Your task to perform on an android device: toggle pop-ups in chrome Image 0: 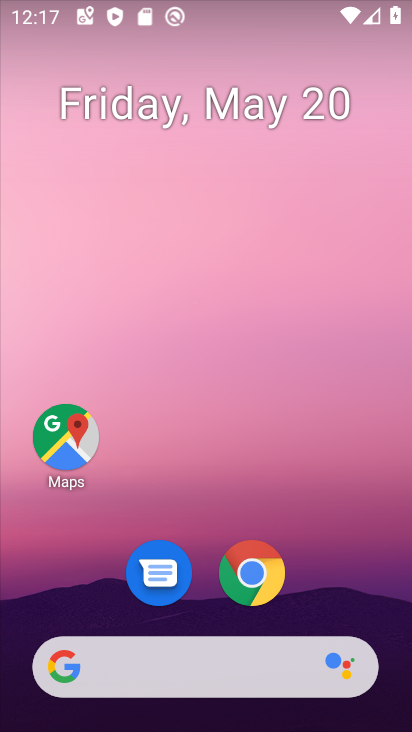
Step 0: click (258, 567)
Your task to perform on an android device: toggle pop-ups in chrome Image 1: 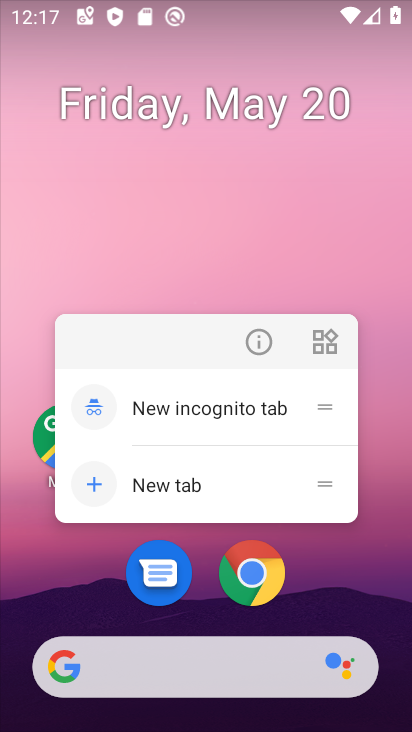
Step 1: click (258, 566)
Your task to perform on an android device: toggle pop-ups in chrome Image 2: 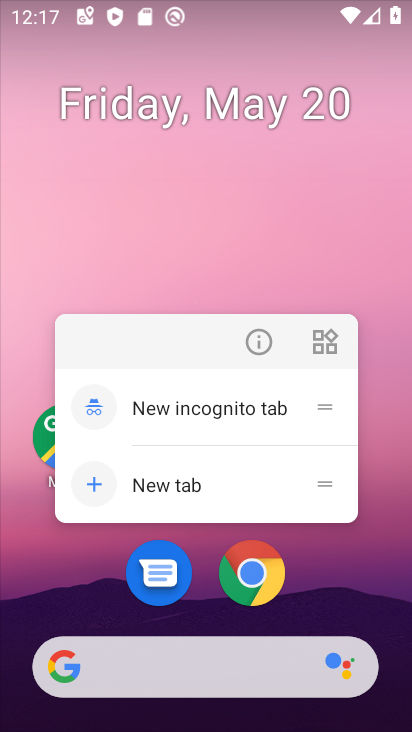
Step 2: click (260, 564)
Your task to perform on an android device: toggle pop-ups in chrome Image 3: 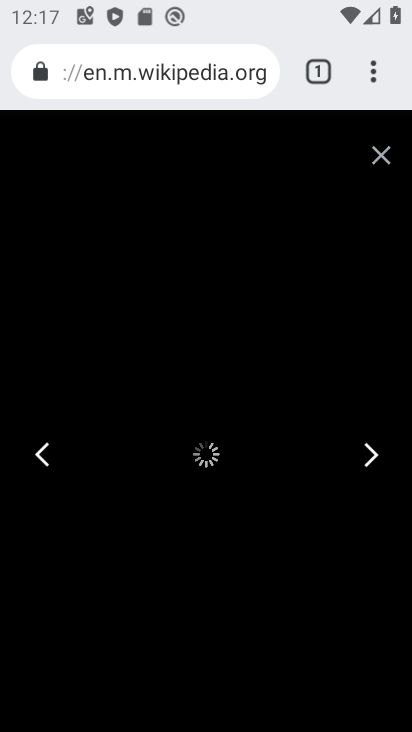
Step 3: click (379, 65)
Your task to perform on an android device: toggle pop-ups in chrome Image 4: 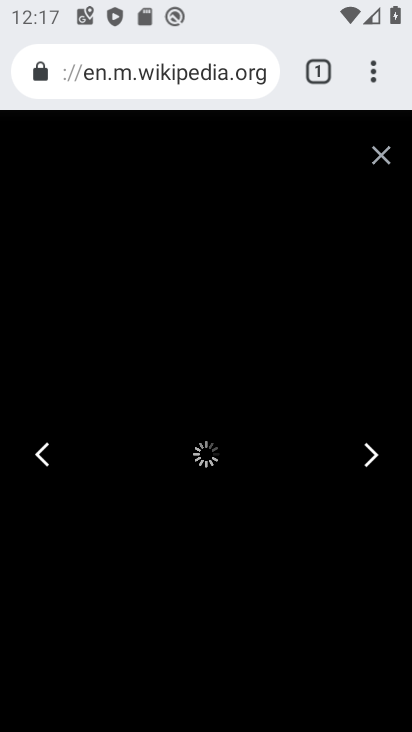
Step 4: click (375, 65)
Your task to perform on an android device: toggle pop-ups in chrome Image 5: 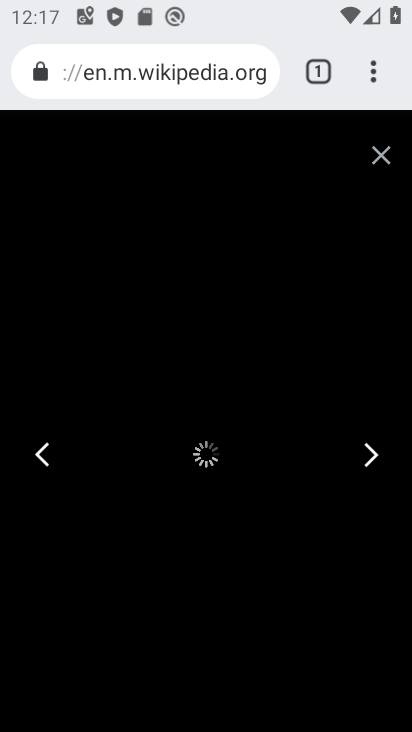
Step 5: click (374, 65)
Your task to perform on an android device: toggle pop-ups in chrome Image 6: 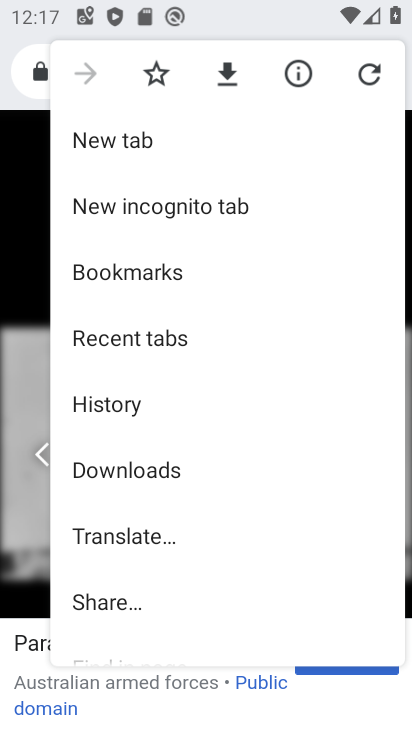
Step 6: drag from (264, 553) to (349, 147)
Your task to perform on an android device: toggle pop-ups in chrome Image 7: 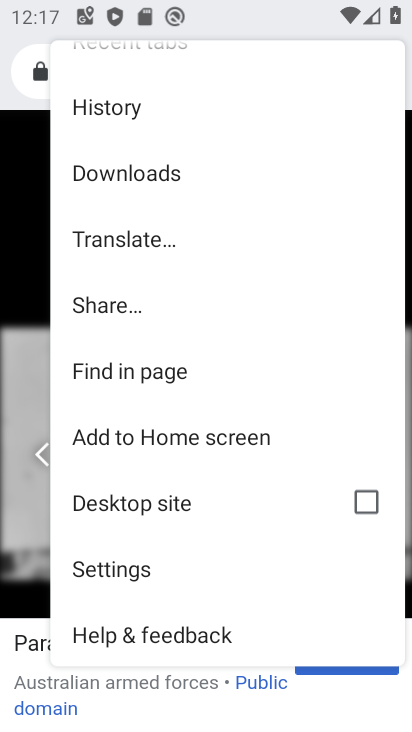
Step 7: click (144, 563)
Your task to perform on an android device: toggle pop-ups in chrome Image 8: 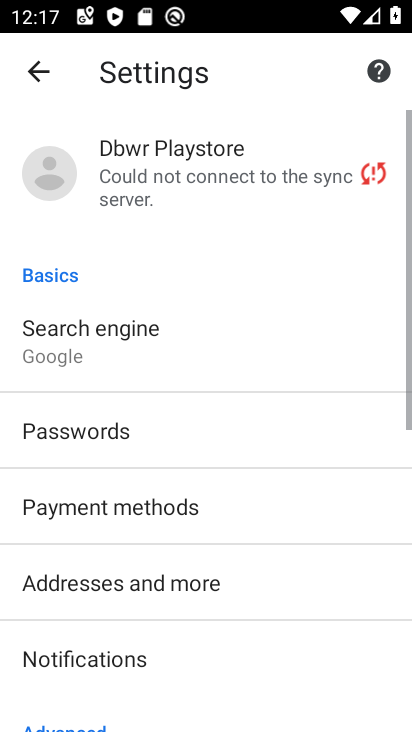
Step 8: drag from (189, 644) to (214, 209)
Your task to perform on an android device: toggle pop-ups in chrome Image 9: 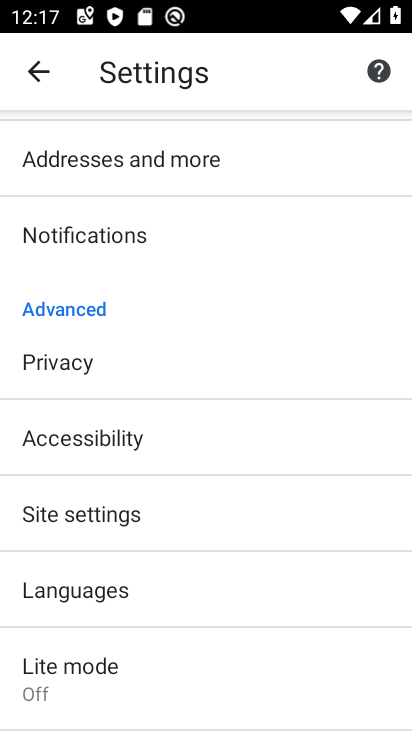
Step 9: click (176, 525)
Your task to perform on an android device: toggle pop-ups in chrome Image 10: 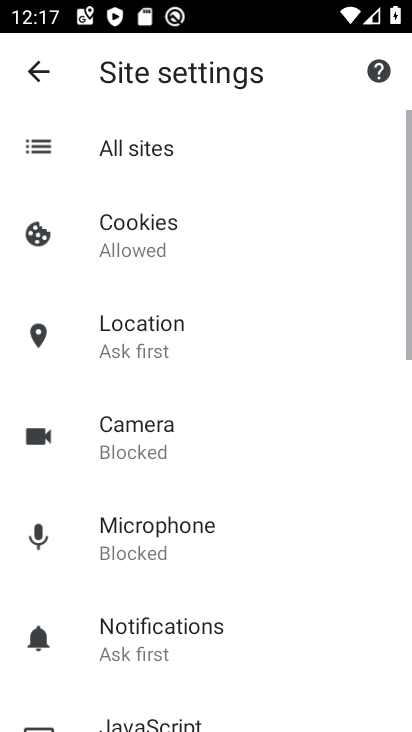
Step 10: drag from (171, 630) to (169, 209)
Your task to perform on an android device: toggle pop-ups in chrome Image 11: 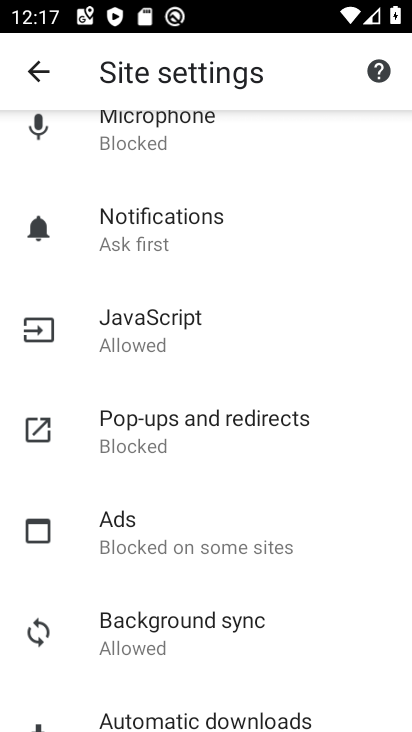
Step 11: click (208, 429)
Your task to perform on an android device: toggle pop-ups in chrome Image 12: 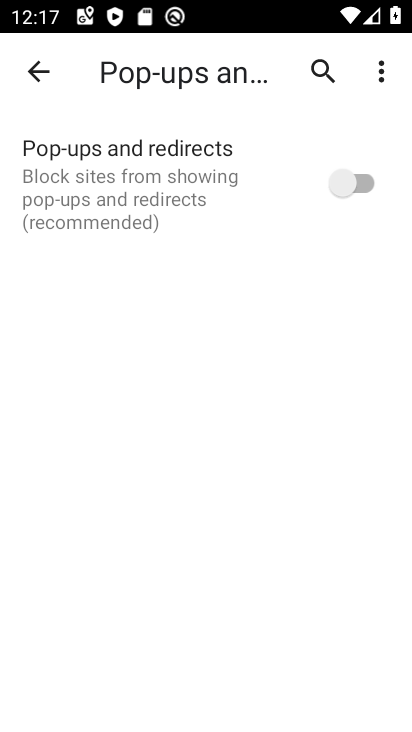
Step 12: click (356, 177)
Your task to perform on an android device: toggle pop-ups in chrome Image 13: 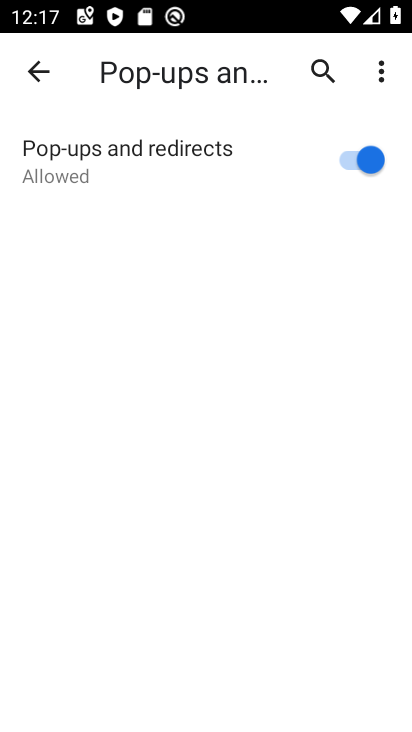
Step 13: task complete